Your task to perform on an android device: Go to display settings Image 0: 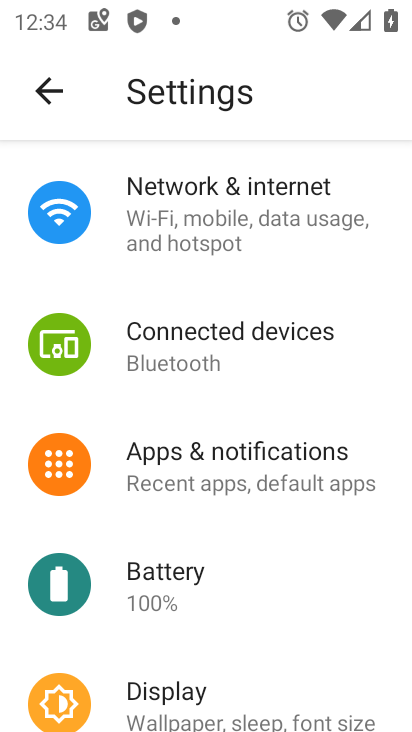
Step 0: press home button
Your task to perform on an android device: Go to display settings Image 1: 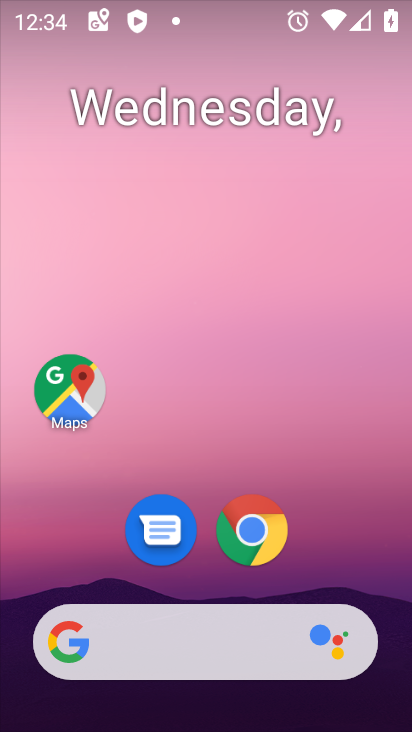
Step 1: drag from (173, 560) to (235, 222)
Your task to perform on an android device: Go to display settings Image 2: 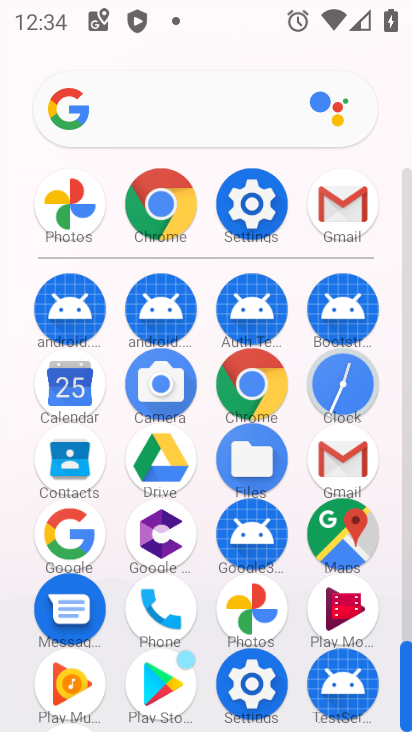
Step 2: click (255, 202)
Your task to perform on an android device: Go to display settings Image 3: 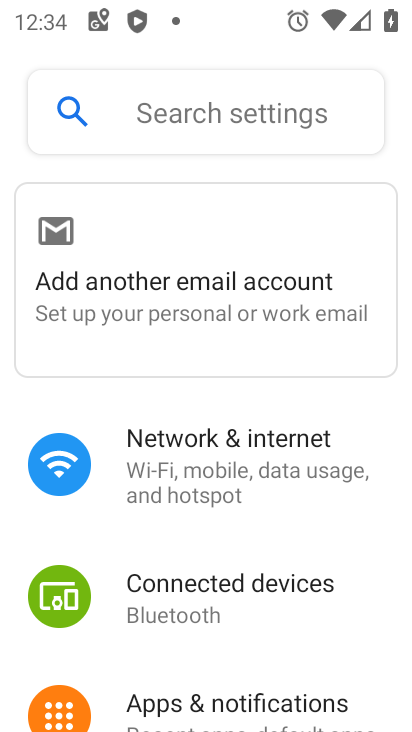
Step 3: drag from (274, 665) to (320, 227)
Your task to perform on an android device: Go to display settings Image 4: 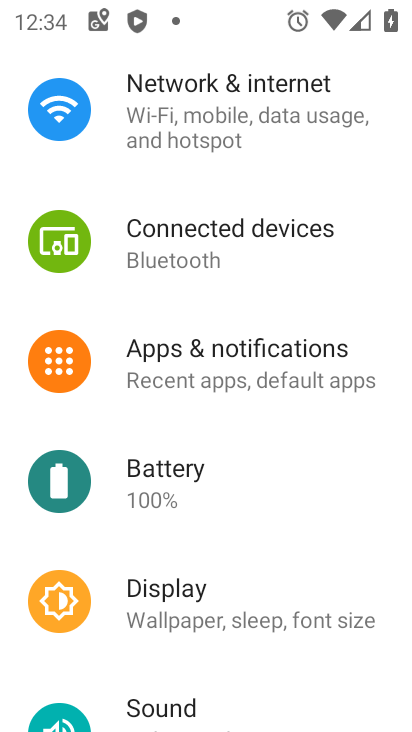
Step 4: click (242, 610)
Your task to perform on an android device: Go to display settings Image 5: 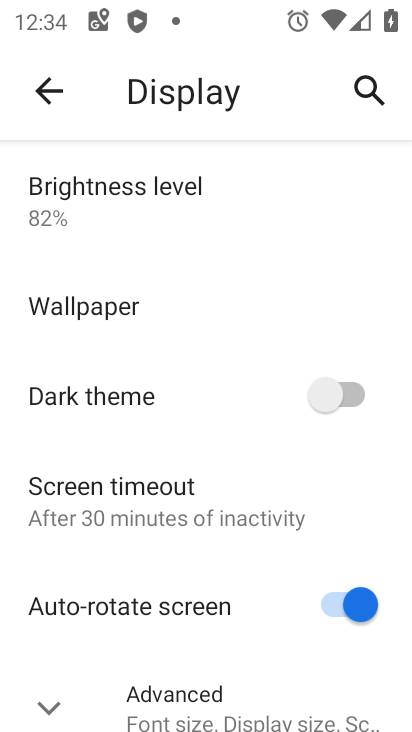
Step 5: task complete